Your task to perform on an android device: set default search engine in the chrome app Image 0: 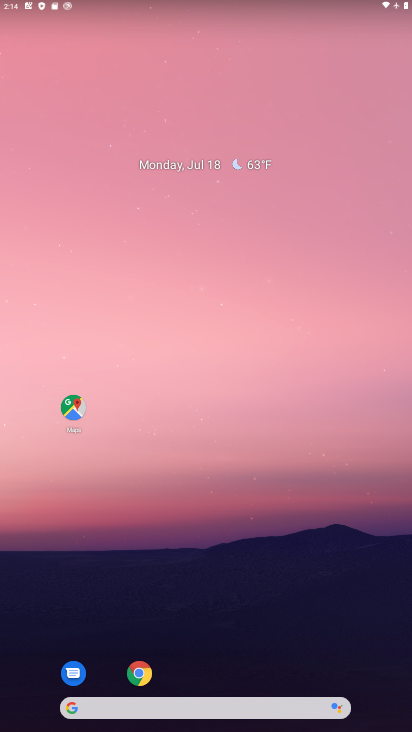
Step 0: drag from (311, 671) to (242, 226)
Your task to perform on an android device: set default search engine in the chrome app Image 1: 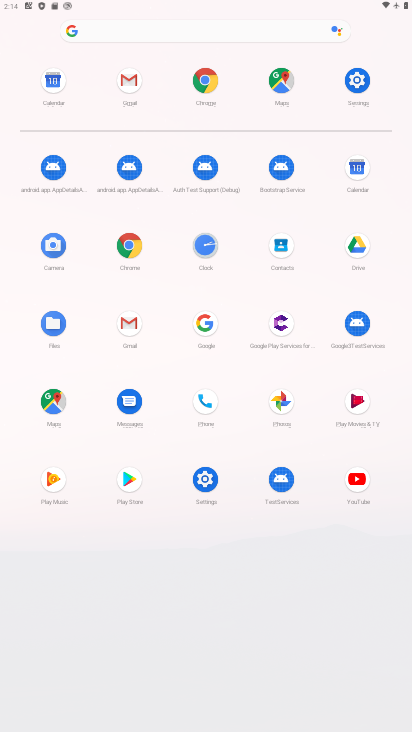
Step 1: click (200, 75)
Your task to perform on an android device: set default search engine in the chrome app Image 2: 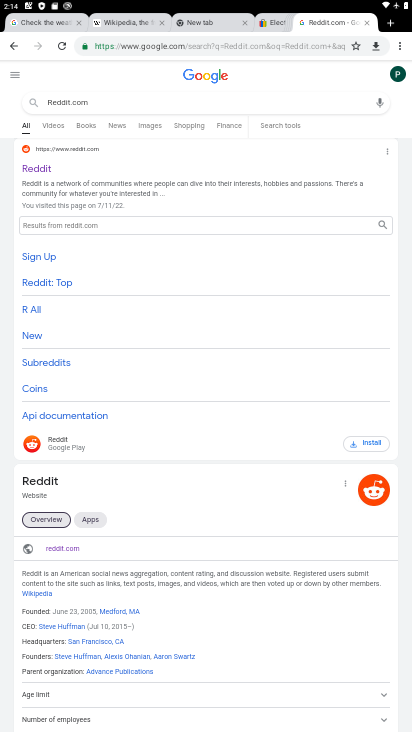
Step 2: click (408, 36)
Your task to perform on an android device: set default search engine in the chrome app Image 3: 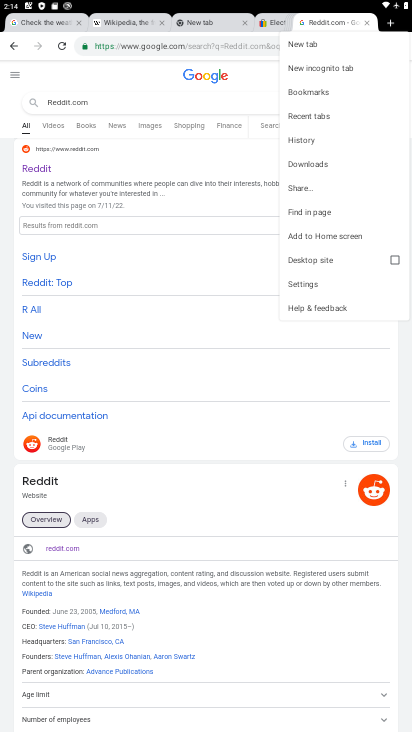
Step 3: click (334, 288)
Your task to perform on an android device: set default search engine in the chrome app Image 4: 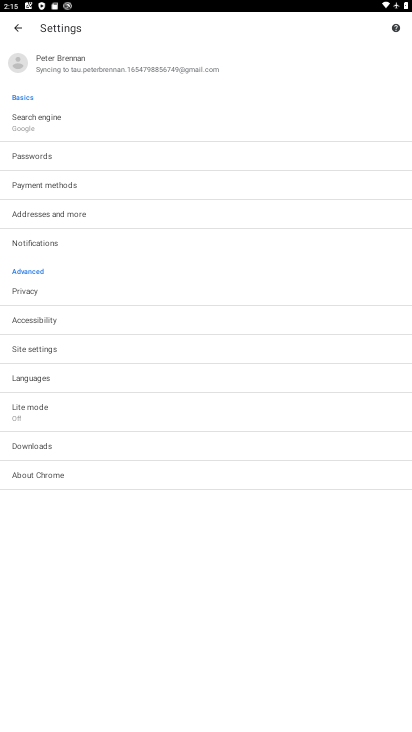
Step 4: click (58, 123)
Your task to perform on an android device: set default search engine in the chrome app Image 5: 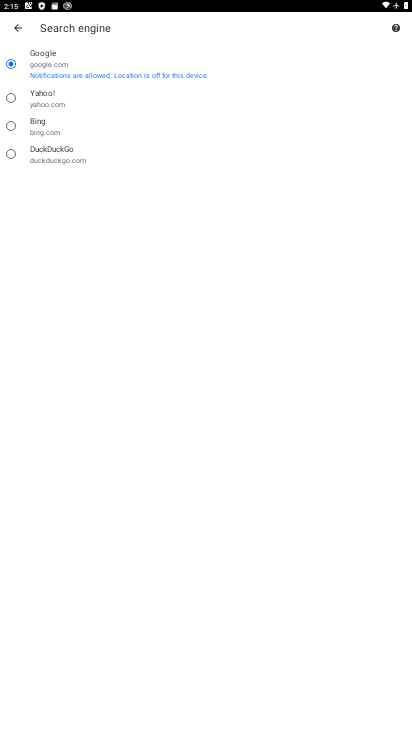
Step 5: click (35, 115)
Your task to perform on an android device: set default search engine in the chrome app Image 6: 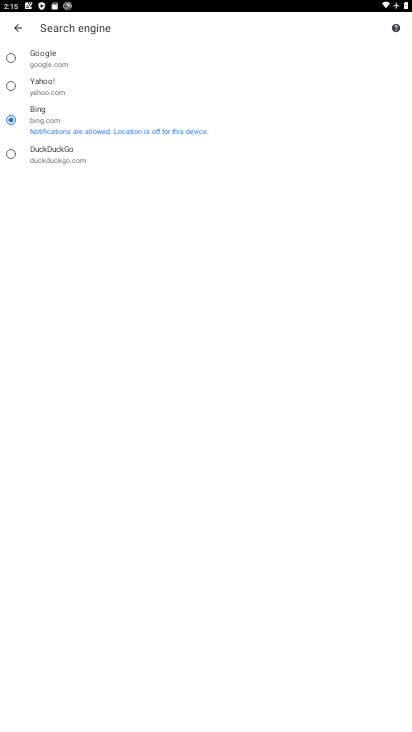
Step 6: task complete